Your task to perform on an android device: Open Reddit.com Image 0: 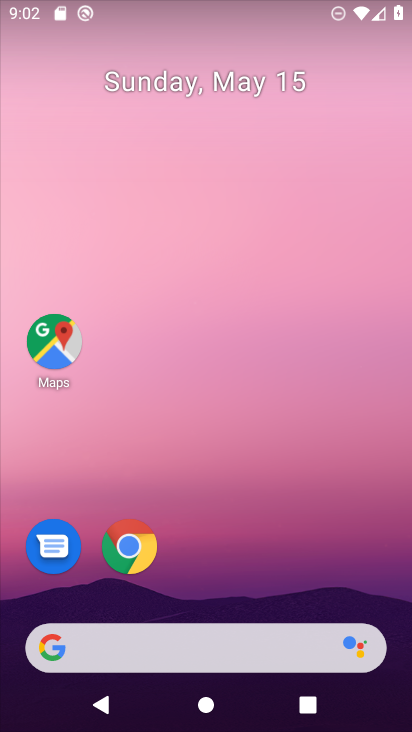
Step 0: click (273, 638)
Your task to perform on an android device: Open Reddit.com Image 1: 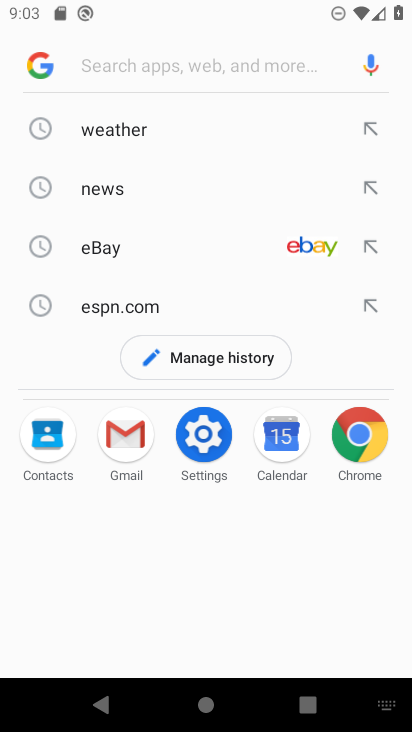
Step 1: type "reddit.com"
Your task to perform on an android device: Open Reddit.com Image 2: 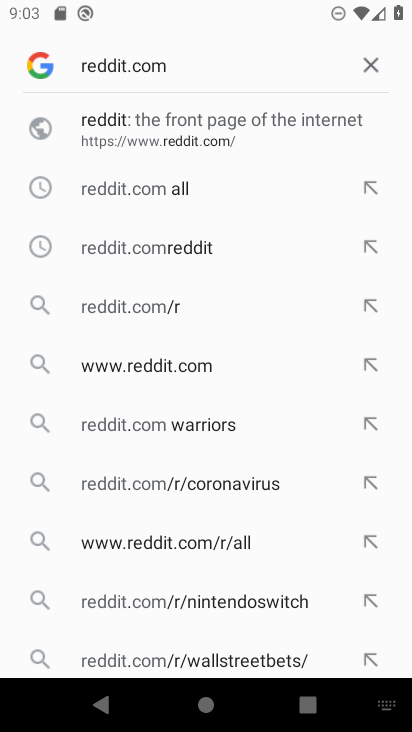
Step 2: click (100, 119)
Your task to perform on an android device: Open Reddit.com Image 3: 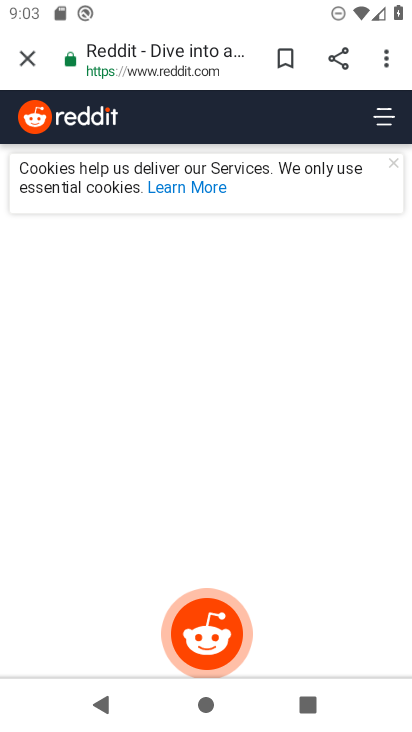
Step 3: task complete